Your task to perform on an android device: Show me the alarms in the clock app Image 0: 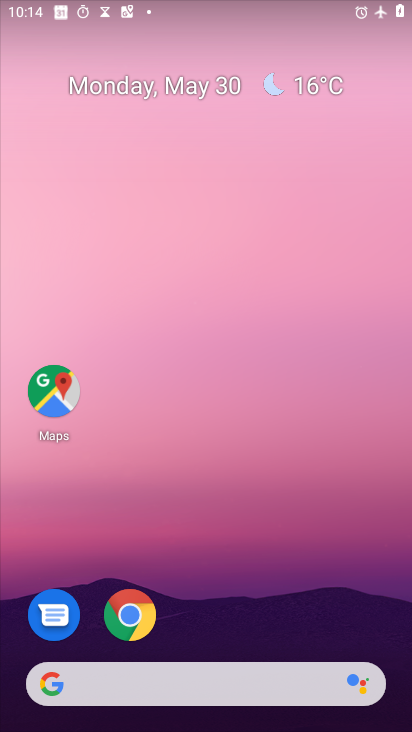
Step 0: drag from (236, 569) to (249, 69)
Your task to perform on an android device: Show me the alarms in the clock app Image 1: 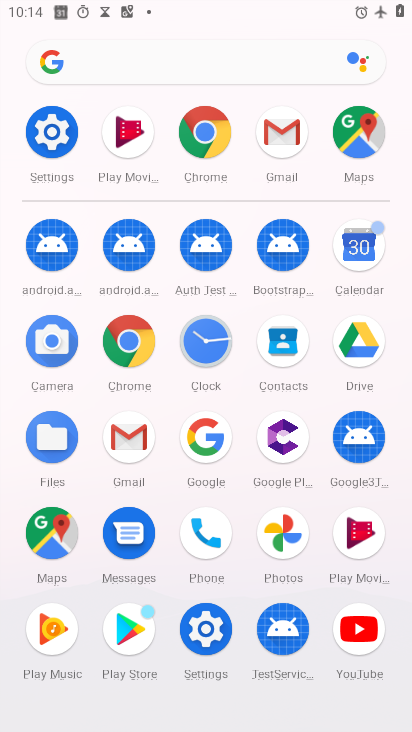
Step 1: click (196, 339)
Your task to perform on an android device: Show me the alarms in the clock app Image 2: 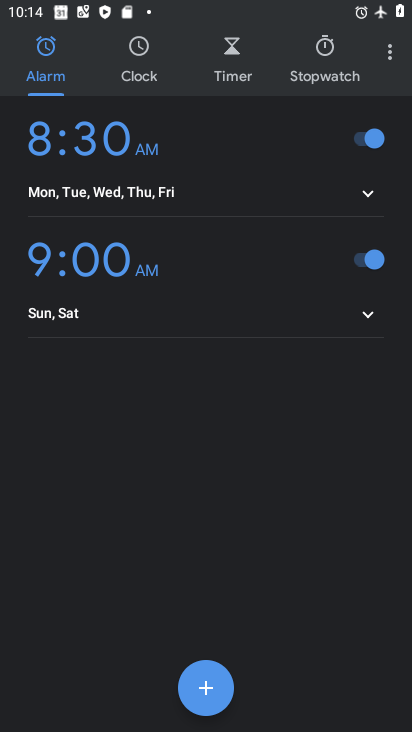
Step 2: task complete